Your task to perform on an android device: Go to settings Image 0: 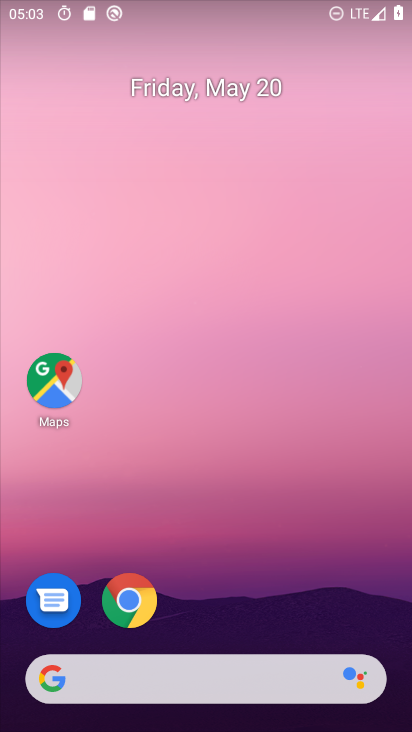
Step 0: drag from (216, 612) to (299, 86)
Your task to perform on an android device: Go to settings Image 1: 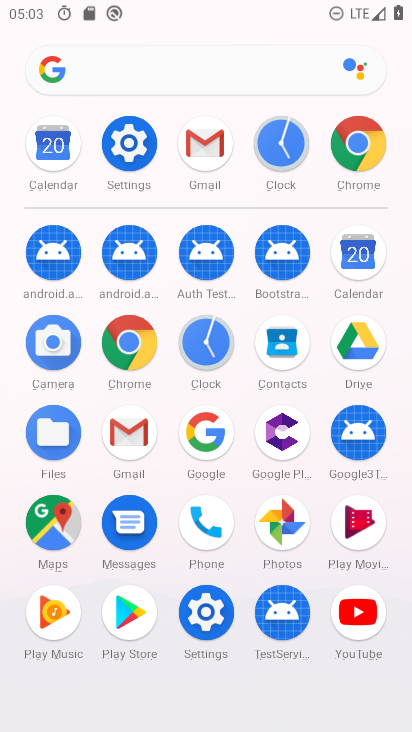
Step 1: click (124, 230)
Your task to perform on an android device: Go to settings Image 2: 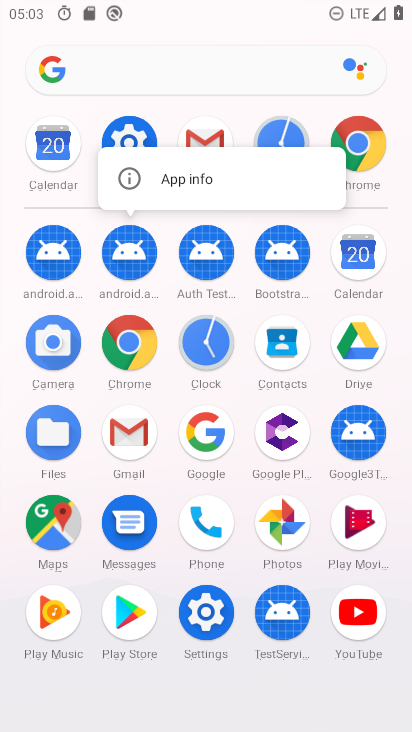
Step 2: click (124, 138)
Your task to perform on an android device: Go to settings Image 3: 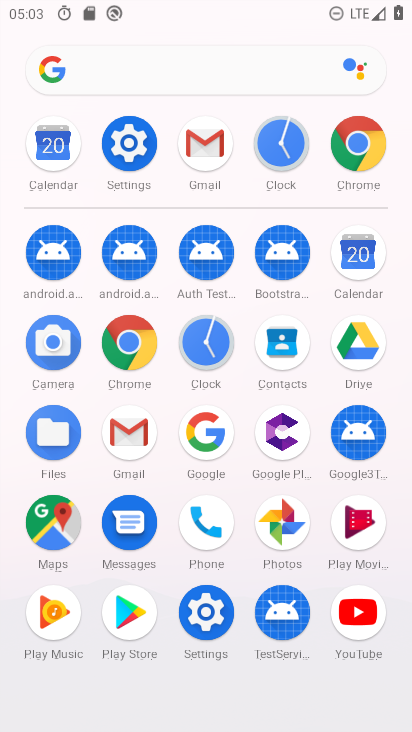
Step 3: click (129, 136)
Your task to perform on an android device: Go to settings Image 4: 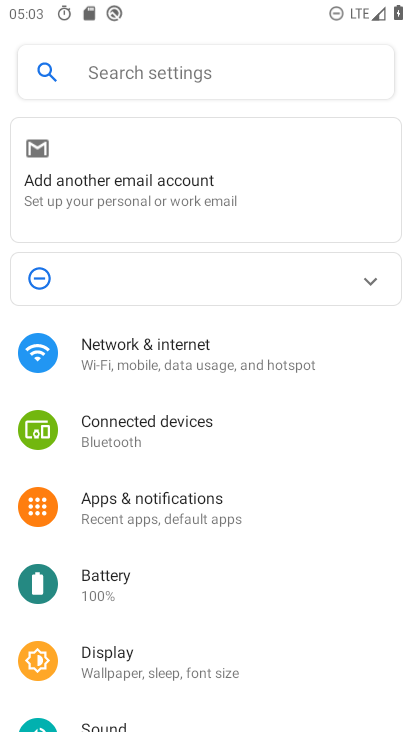
Step 4: task complete